Your task to perform on an android device: Search for the best selling TV on Best Buy. Image 0: 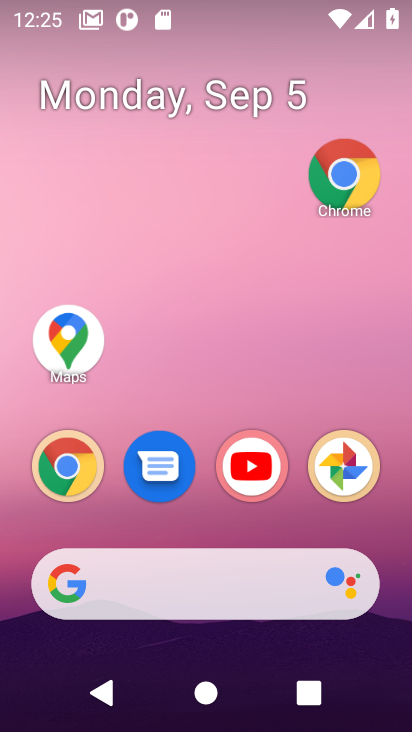
Step 0: drag from (200, 512) to (199, 114)
Your task to perform on an android device: Search for the best selling TV on Best Buy. Image 1: 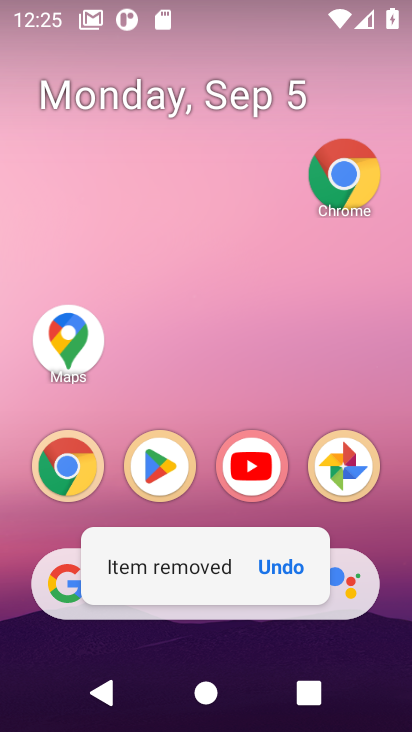
Step 1: drag from (216, 498) to (135, 22)
Your task to perform on an android device: Search for the best selling TV on Best Buy. Image 2: 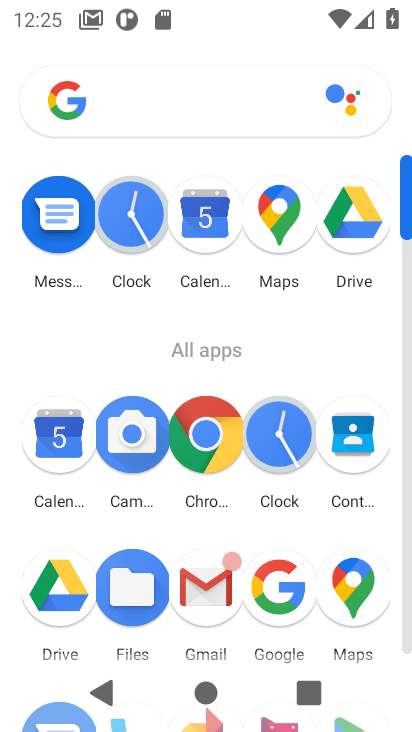
Step 2: click (205, 429)
Your task to perform on an android device: Search for the best selling TV on Best Buy. Image 3: 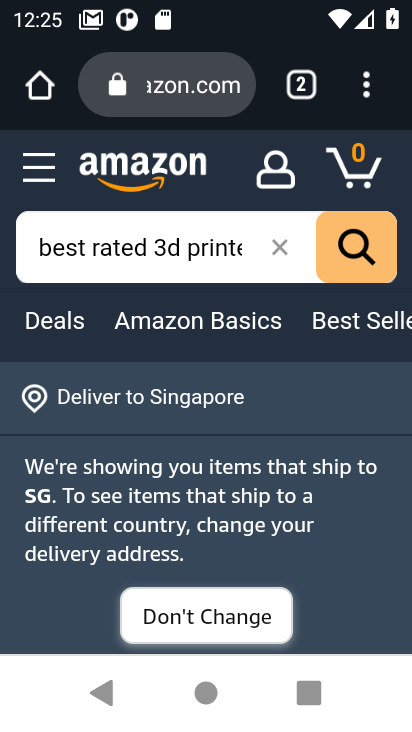
Step 3: press back button
Your task to perform on an android device: Search for the best selling TV on Best Buy. Image 4: 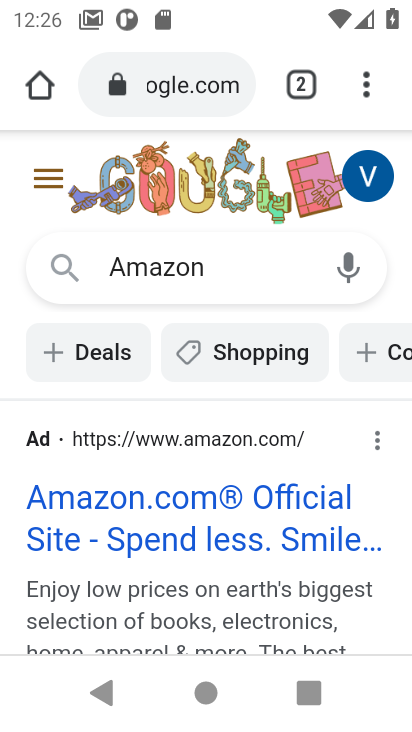
Step 4: click (171, 518)
Your task to perform on an android device: Search for the best selling TV on Best Buy. Image 5: 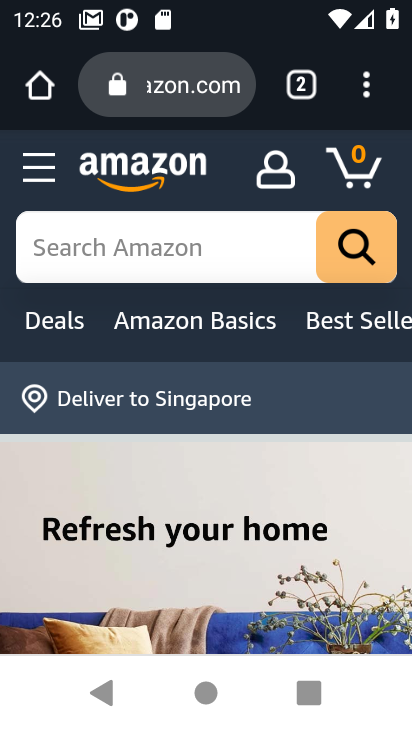
Step 5: click (59, 243)
Your task to perform on an android device: Search for the best selling TV on Best Buy. Image 6: 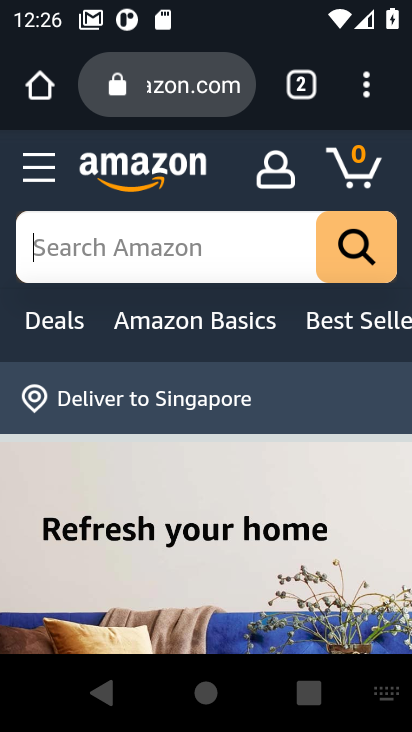
Step 6: type " Best Buy"
Your task to perform on an android device: Search for the best selling TV on Best Buy. Image 7: 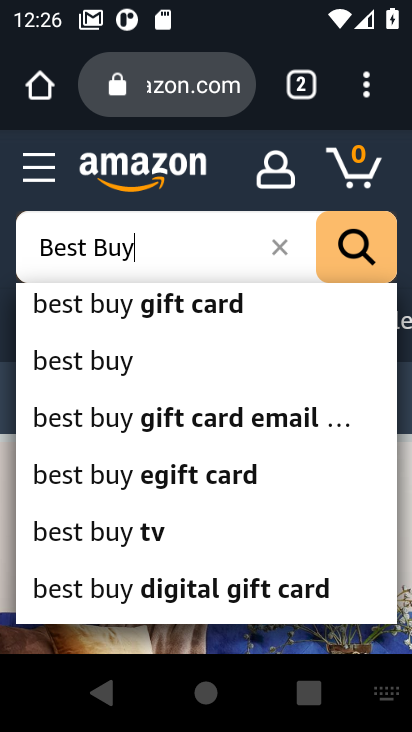
Step 7: click (117, 360)
Your task to perform on an android device: Search for the best selling TV on Best Buy. Image 8: 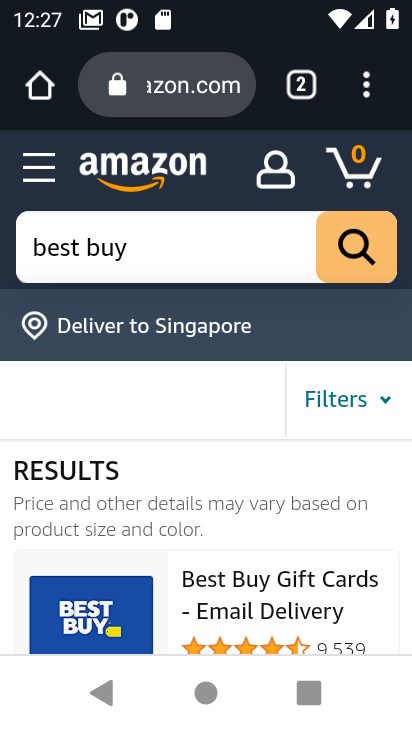
Step 8: drag from (273, 593) to (300, 138)
Your task to perform on an android device: Search for the best selling TV on Best Buy. Image 9: 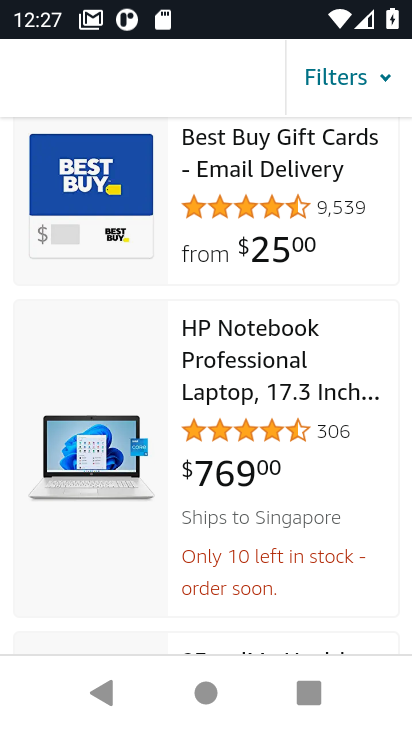
Step 9: drag from (281, 187) to (151, 671)
Your task to perform on an android device: Search for the best selling TV on Best Buy. Image 10: 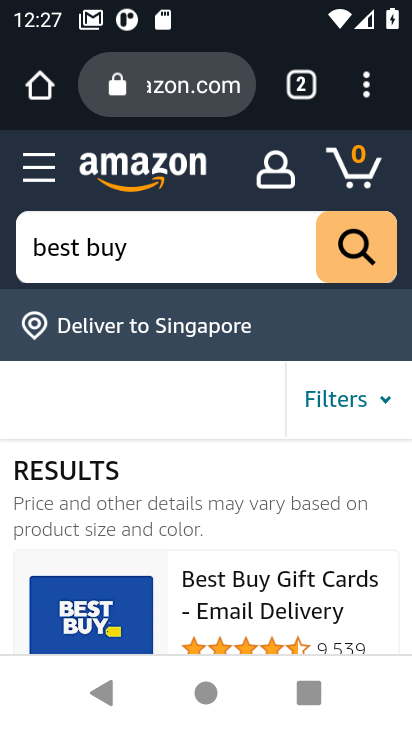
Step 10: click (232, 247)
Your task to perform on an android device: Search for the best selling TV on Best Buy. Image 11: 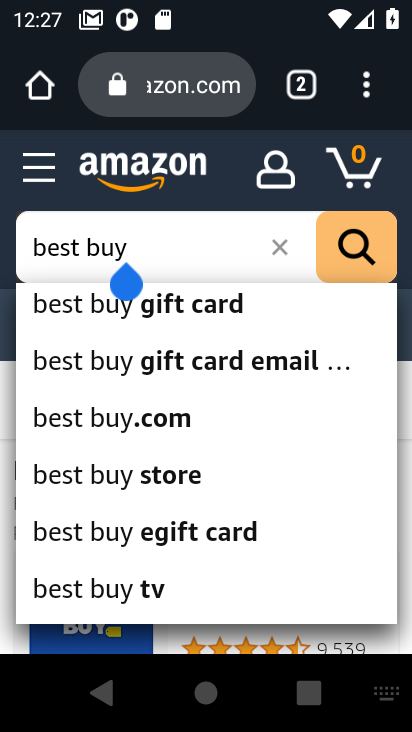
Step 11: task complete